Your task to perform on an android device: create a new album in the google photos Image 0: 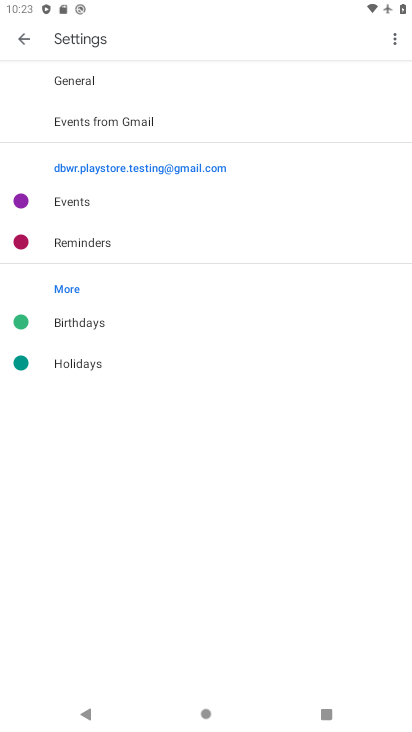
Step 0: press home button
Your task to perform on an android device: create a new album in the google photos Image 1: 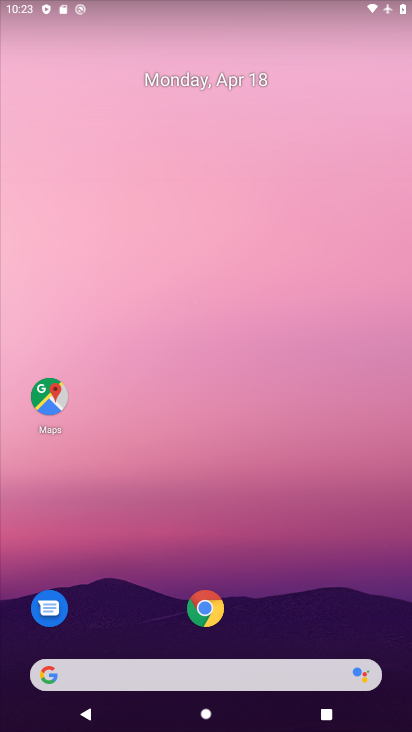
Step 1: drag from (290, 613) to (365, 123)
Your task to perform on an android device: create a new album in the google photos Image 2: 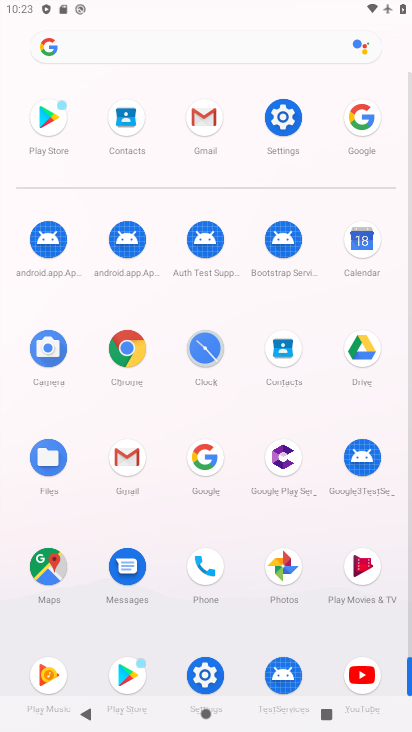
Step 2: click (278, 571)
Your task to perform on an android device: create a new album in the google photos Image 3: 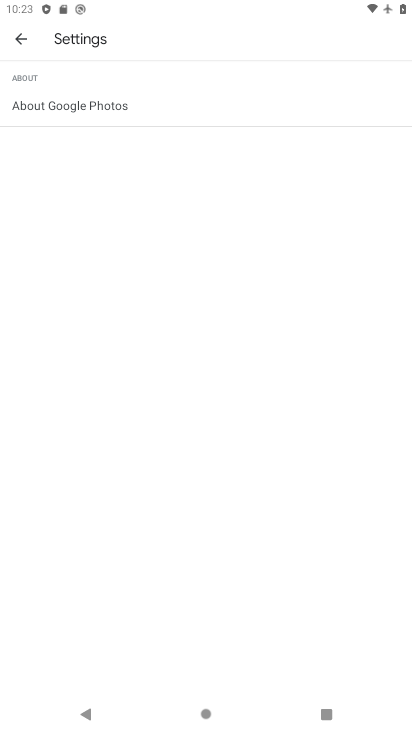
Step 3: click (68, 93)
Your task to perform on an android device: create a new album in the google photos Image 4: 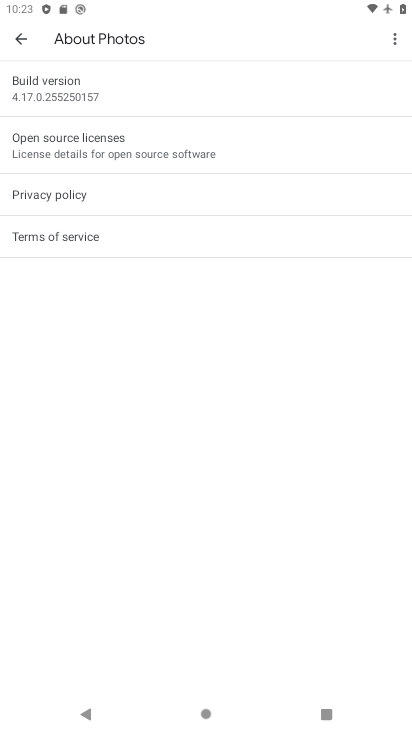
Step 4: click (18, 38)
Your task to perform on an android device: create a new album in the google photos Image 5: 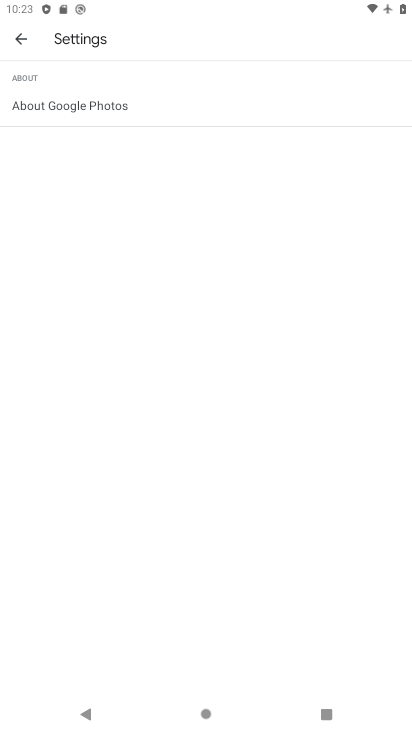
Step 5: press back button
Your task to perform on an android device: create a new album in the google photos Image 6: 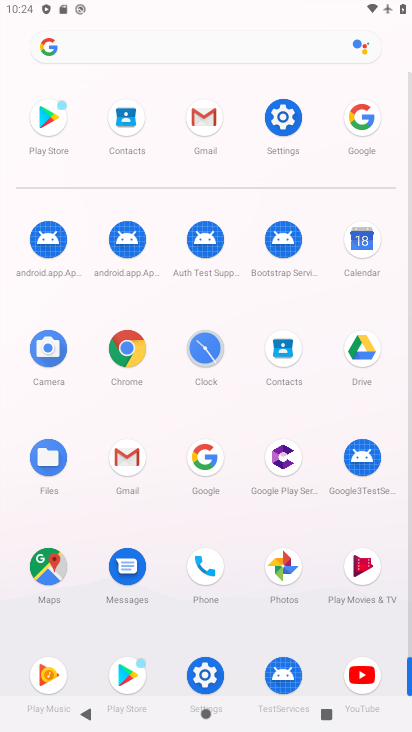
Step 6: click (278, 558)
Your task to perform on an android device: create a new album in the google photos Image 7: 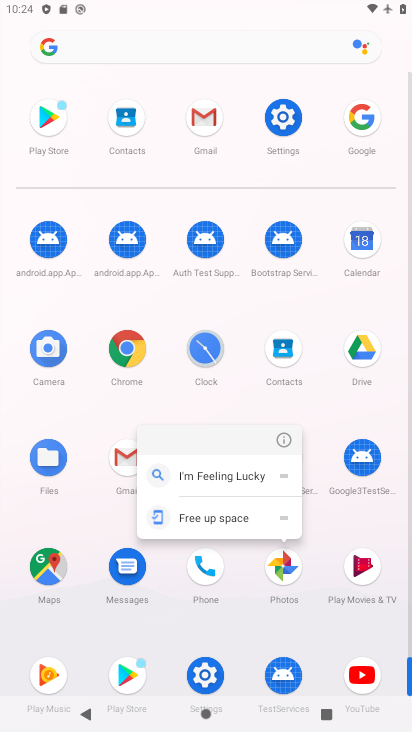
Step 7: click (292, 569)
Your task to perform on an android device: create a new album in the google photos Image 8: 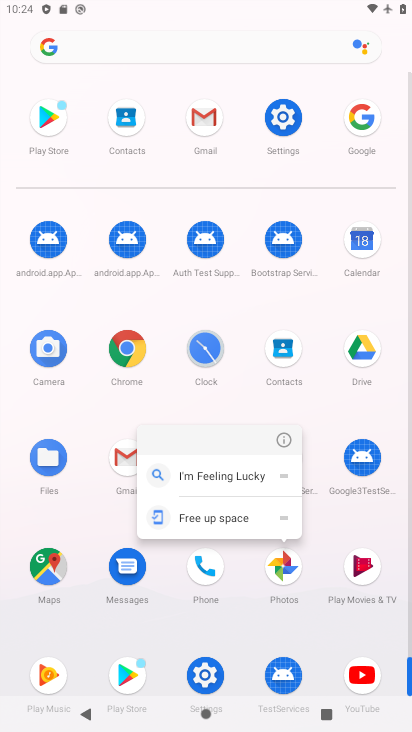
Step 8: click (285, 569)
Your task to perform on an android device: create a new album in the google photos Image 9: 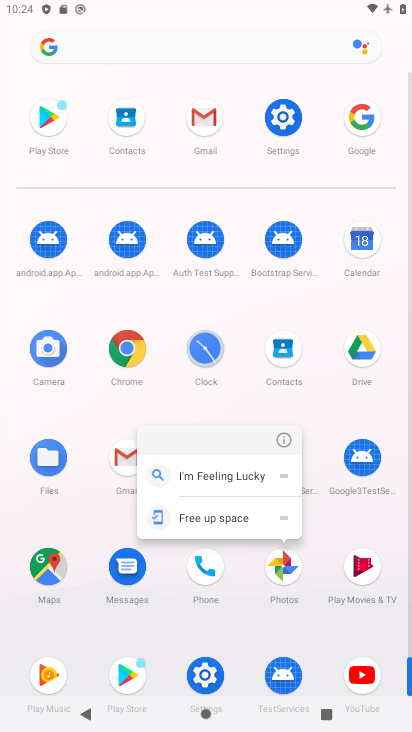
Step 9: click (285, 569)
Your task to perform on an android device: create a new album in the google photos Image 10: 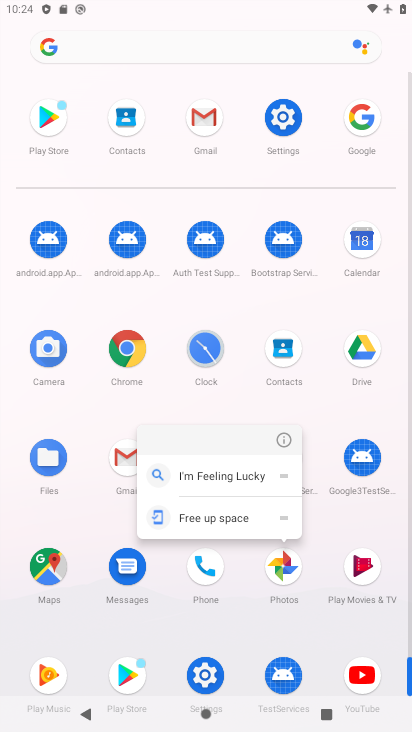
Step 10: click (269, 557)
Your task to perform on an android device: create a new album in the google photos Image 11: 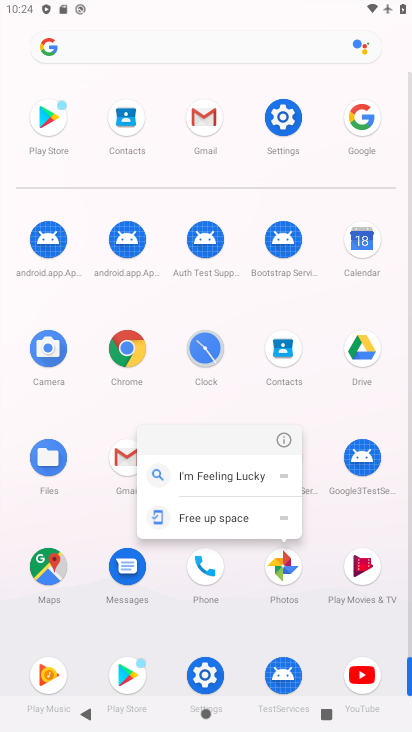
Step 11: click (288, 568)
Your task to perform on an android device: create a new album in the google photos Image 12: 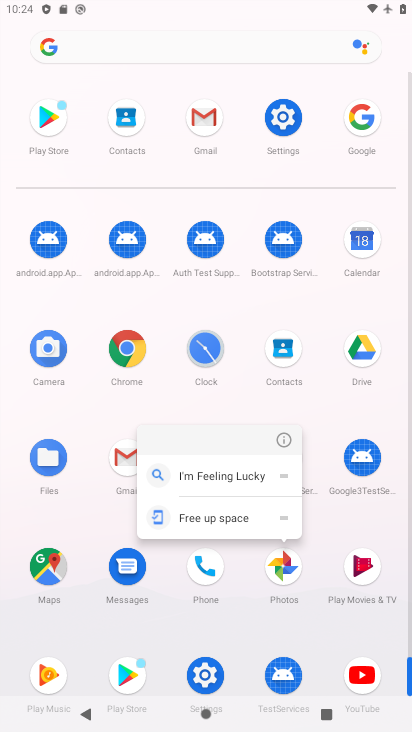
Step 12: click (287, 577)
Your task to perform on an android device: create a new album in the google photos Image 13: 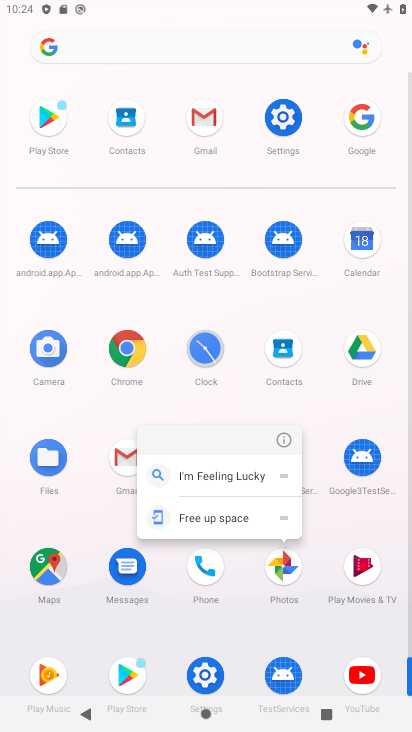
Step 13: click (287, 577)
Your task to perform on an android device: create a new album in the google photos Image 14: 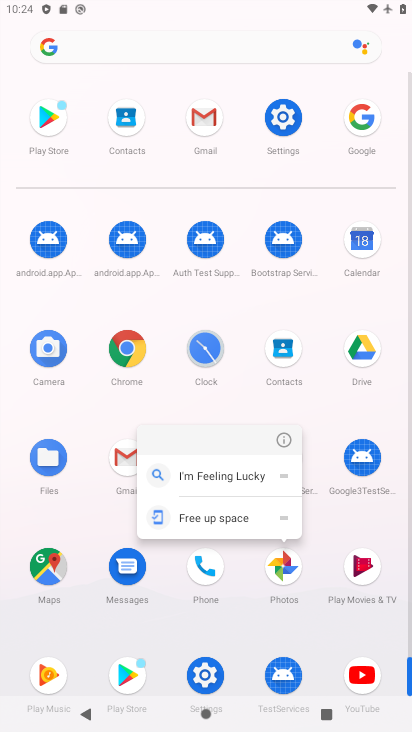
Step 14: click (287, 577)
Your task to perform on an android device: create a new album in the google photos Image 15: 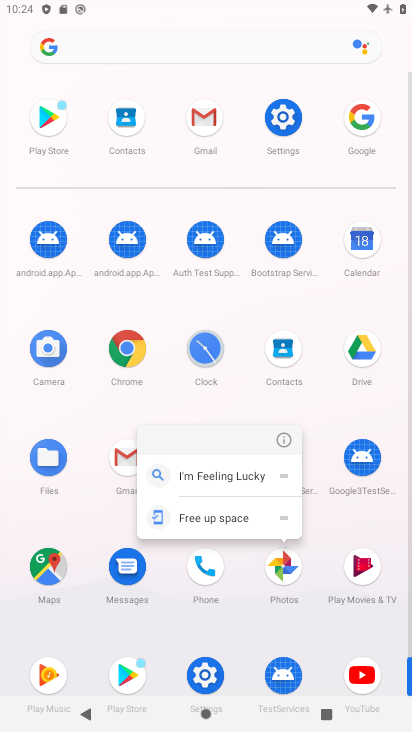
Step 15: click (292, 574)
Your task to perform on an android device: create a new album in the google photos Image 16: 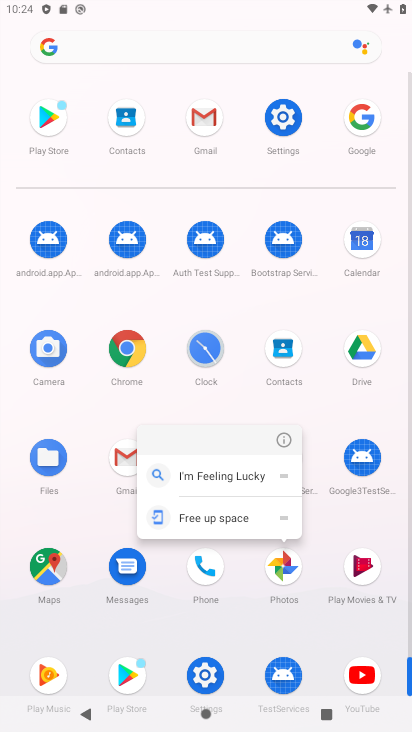
Step 16: click (292, 574)
Your task to perform on an android device: create a new album in the google photos Image 17: 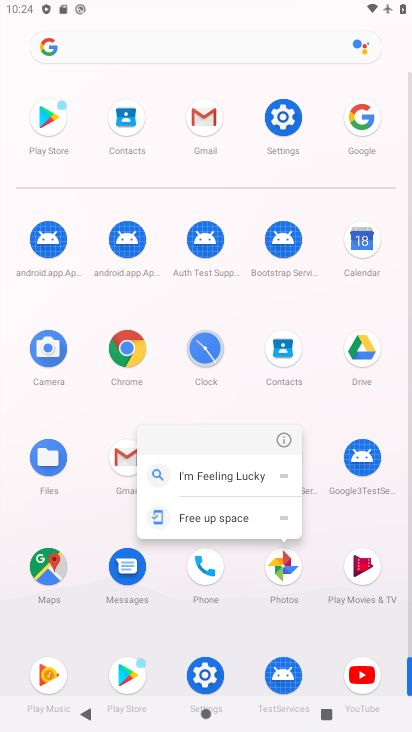
Step 17: click (282, 579)
Your task to perform on an android device: create a new album in the google photos Image 18: 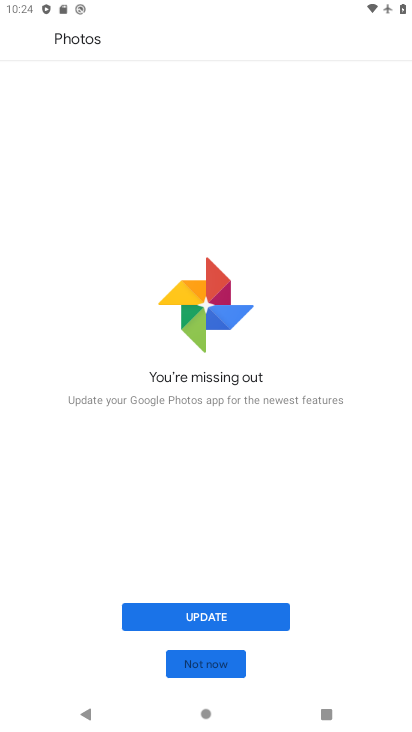
Step 18: click (217, 612)
Your task to perform on an android device: create a new album in the google photos Image 19: 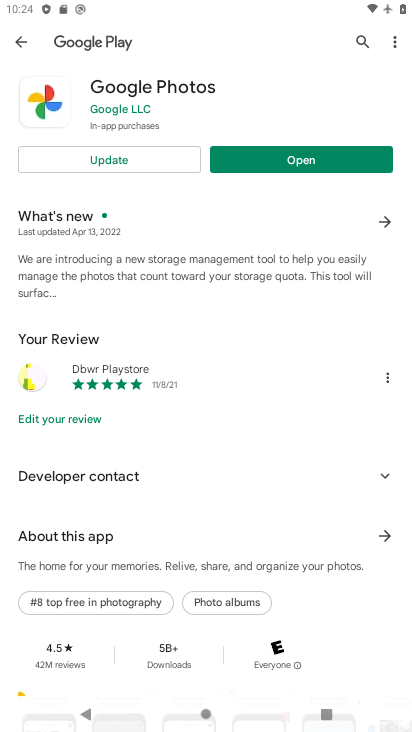
Step 19: click (288, 152)
Your task to perform on an android device: create a new album in the google photos Image 20: 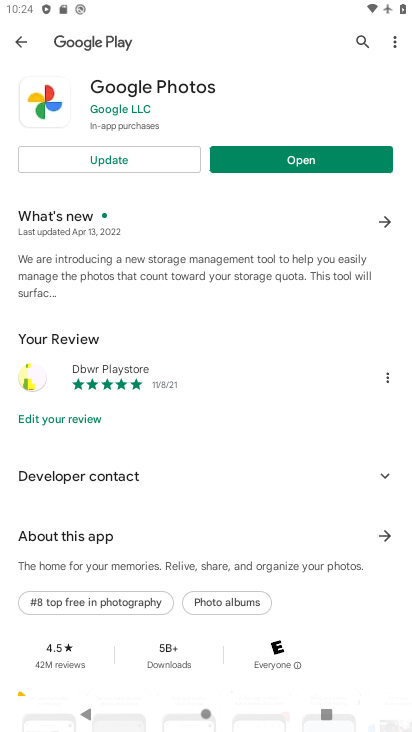
Step 20: click (288, 152)
Your task to perform on an android device: create a new album in the google photos Image 21: 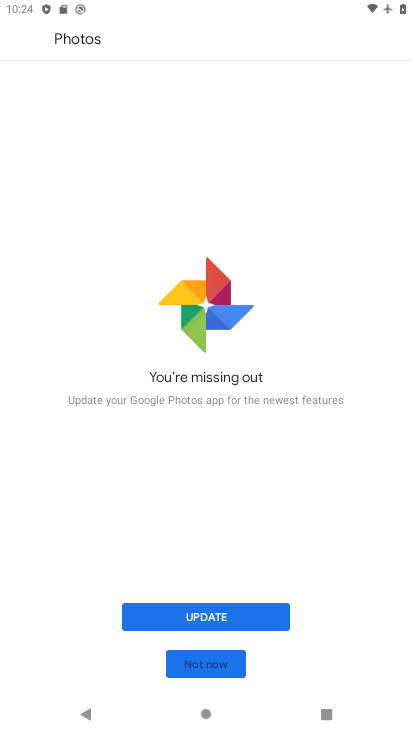
Step 21: click (233, 616)
Your task to perform on an android device: create a new album in the google photos Image 22: 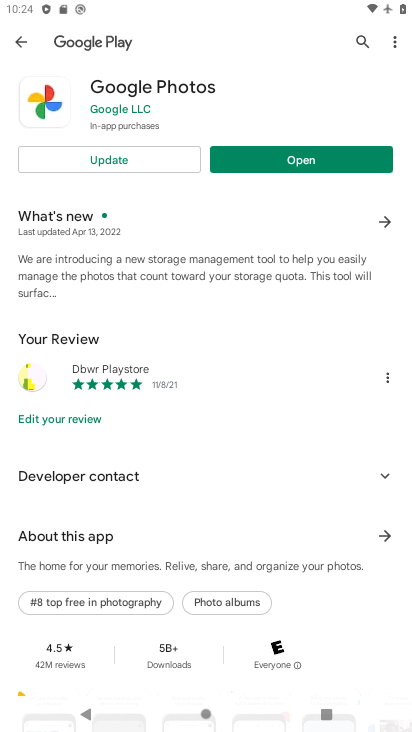
Step 22: click (155, 159)
Your task to perform on an android device: create a new album in the google photos Image 23: 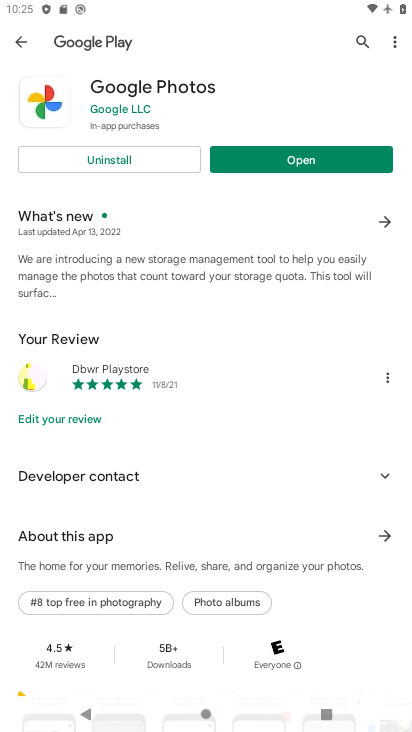
Step 23: click (308, 160)
Your task to perform on an android device: create a new album in the google photos Image 24: 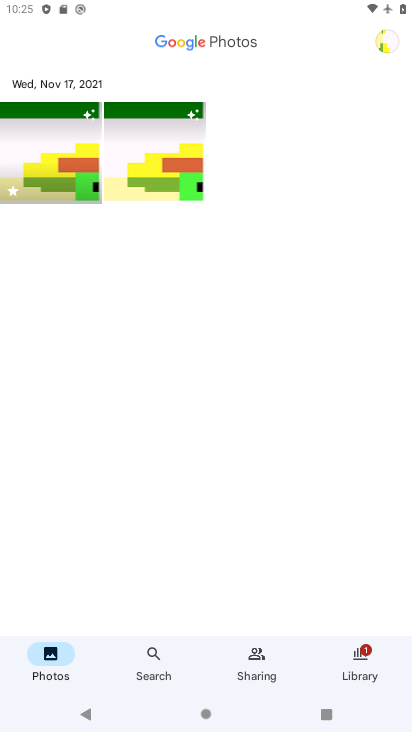
Step 24: click (383, 46)
Your task to perform on an android device: create a new album in the google photos Image 25: 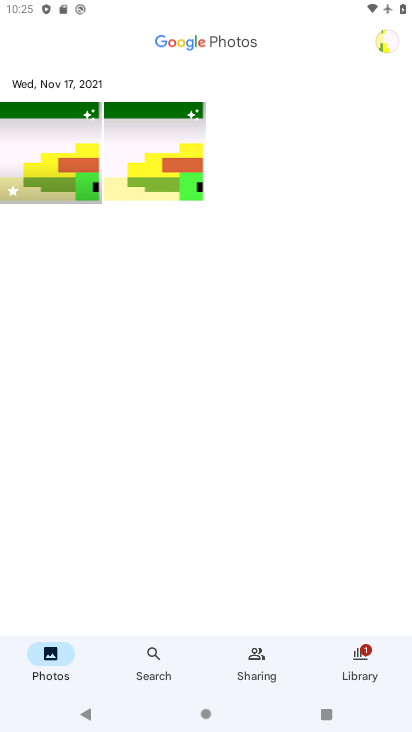
Step 25: click (394, 44)
Your task to perform on an android device: create a new album in the google photos Image 26: 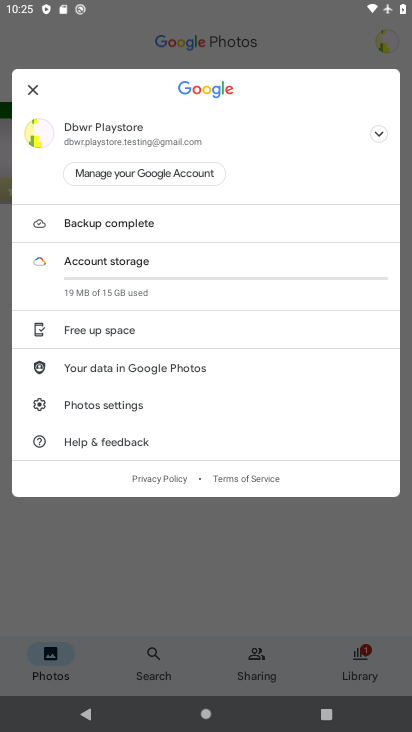
Step 26: click (110, 403)
Your task to perform on an android device: create a new album in the google photos Image 27: 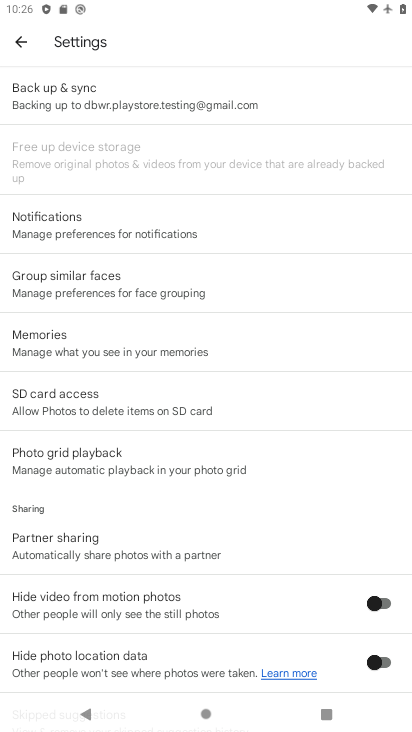
Step 27: click (21, 41)
Your task to perform on an android device: create a new album in the google photos Image 28: 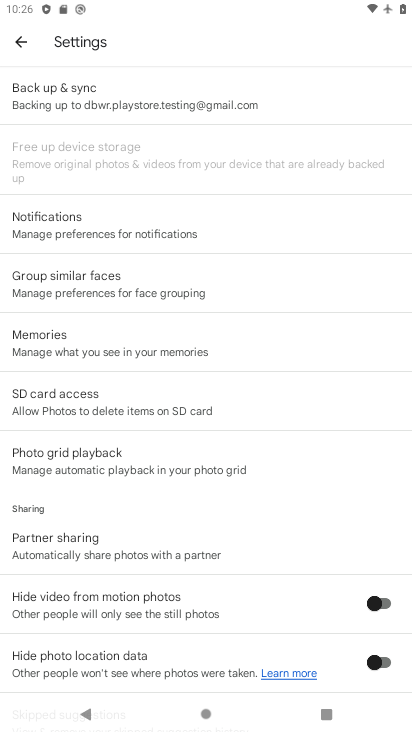
Step 28: press back button
Your task to perform on an android device: create a new album in the google photos Image 29: 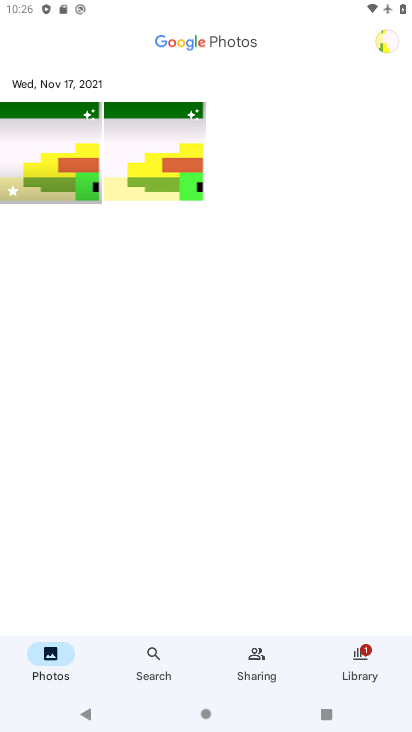
Step 29: click (362, 658)
Your task to perform on an android device: create a new album in the google photos Image 30: 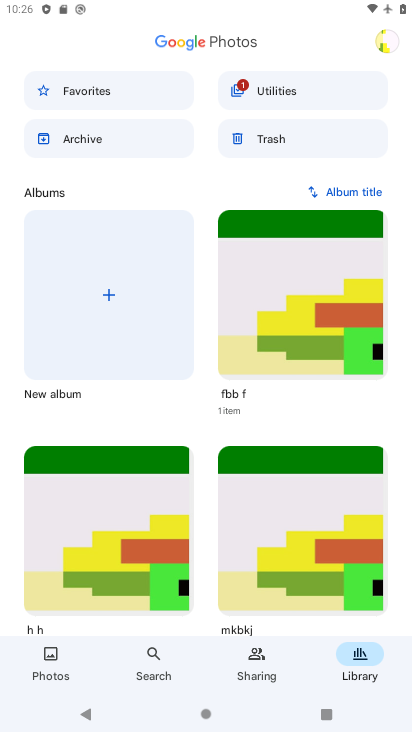
Step 30: click (104, 288)
Your task to perform on an android device: create a new album in the google photos Image 31: 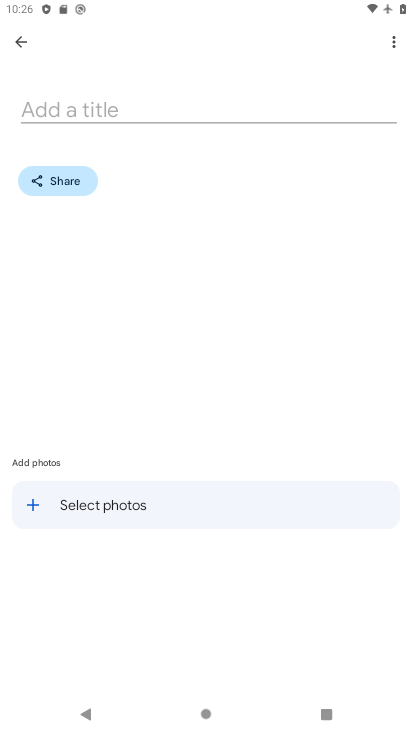
Step 31: click (91, 98)
Your task to perform on an android device: create a new album in the google photos Image 32: 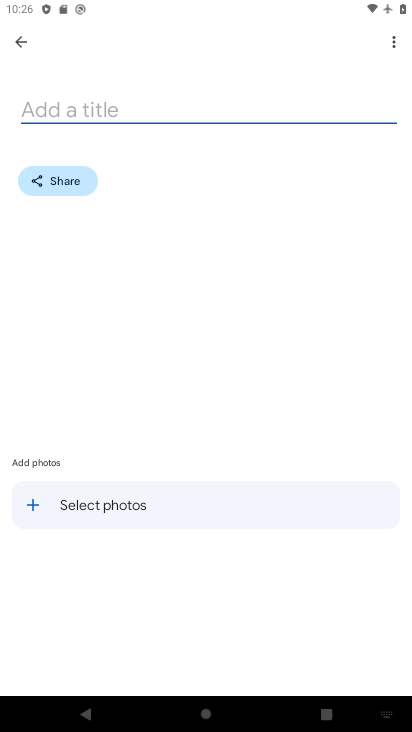
Step 32: type "trm"
Your task to perform on an android device: create a new album in the google photos Image 33: 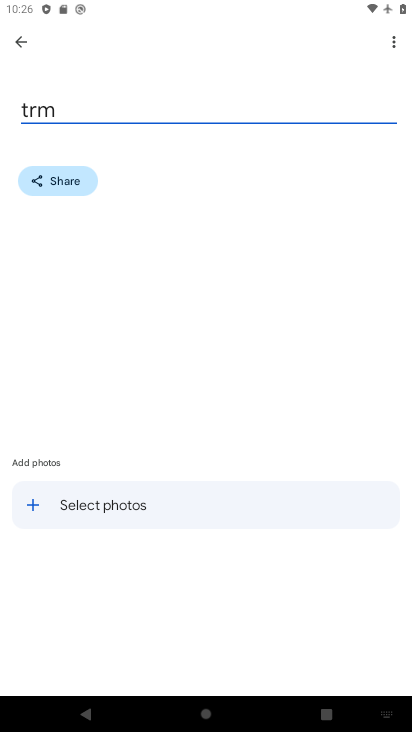
Step 33: click (53, 505)
Your task to perform on an android device: create a new album in the google photos Image 34: 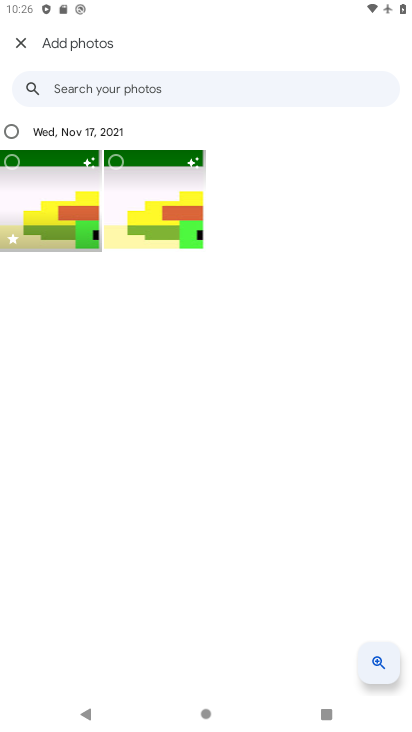
Step 34: click (61, 223)
Your task to perform on an android device: create a new album in the google photos Image 35: 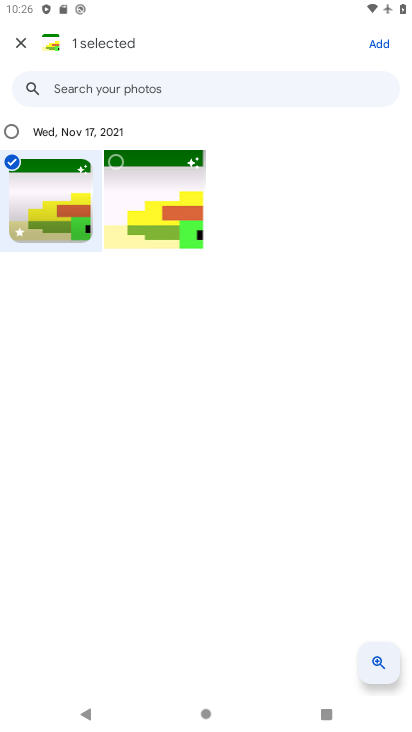
Step 35: click (393, 41)
Your task to perform on an android device: create a new album in the google photos Image 36: 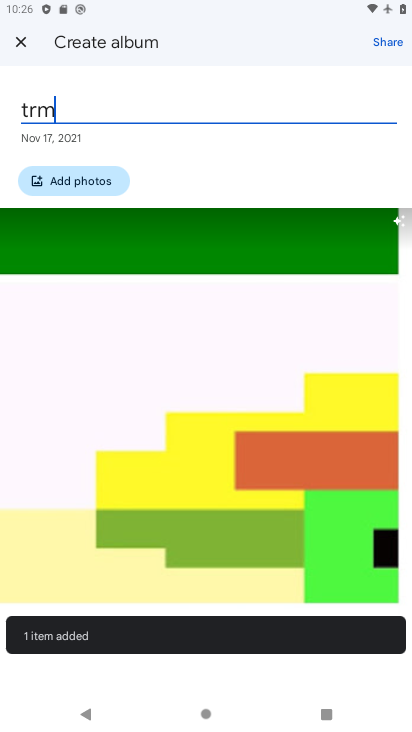
Step 36: task complete